Your task to perform on an android device: toggle airplane mode Image 0: 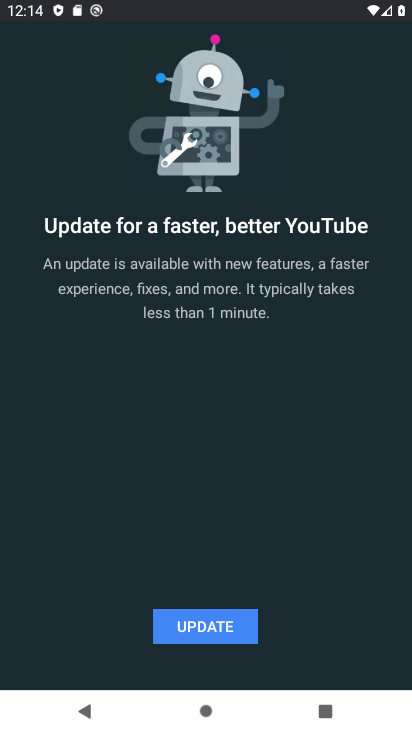
Step 0: press home button
Your task to perform on an android device: toggle airplane mode Image 1: 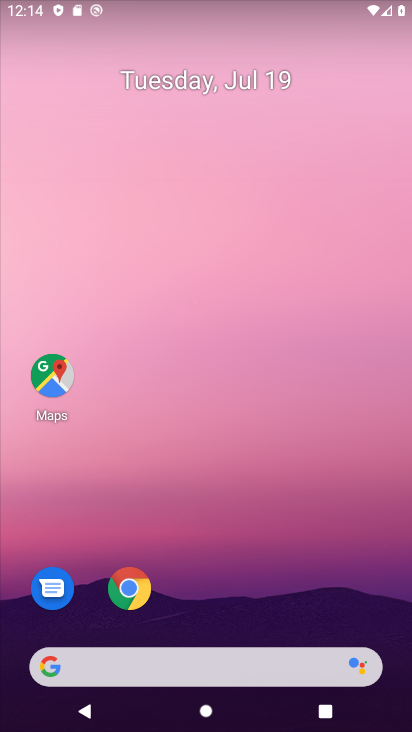
Step 1: drag from (280, 619) to (200, 76)
Your task to perform on an android device: toggle airplane mode Image 2: 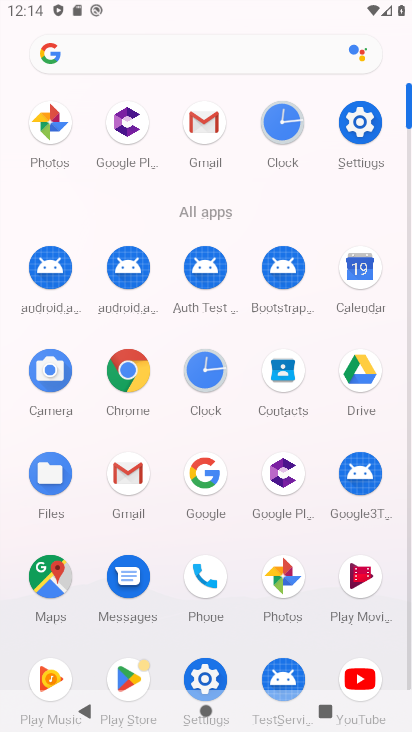
Step 2: click (363, 149)
Your task to perform on an android device: toggle airplane mode Image 3: 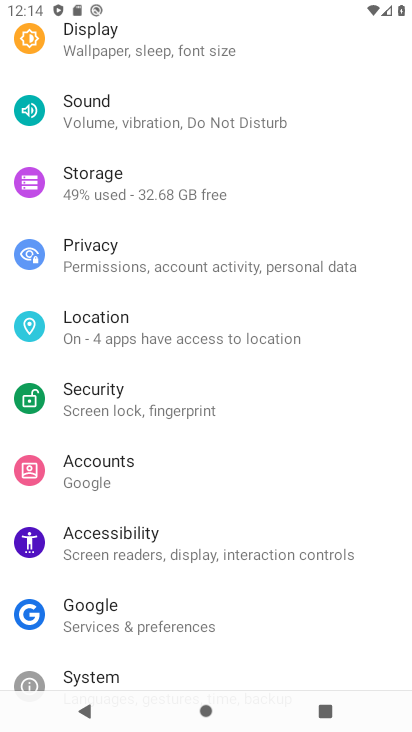
Step 3: drag from (216, 73) to (238, 498)
Your task to perform on an android device: toggle airplane mode Image 4: 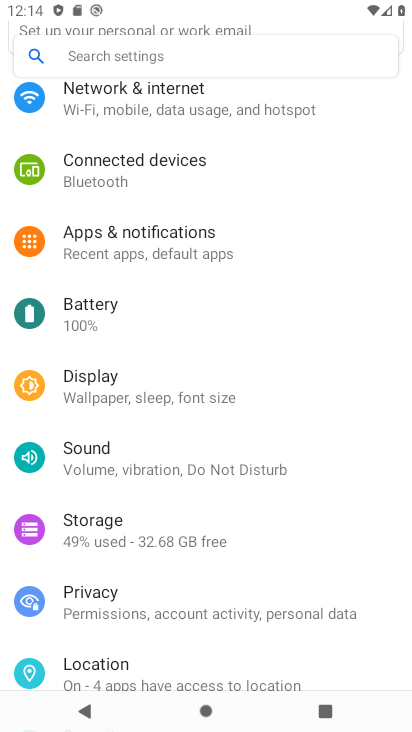
Step 4: drag from (188, 128) to (199, 438)
Your task to perform on an android device: toggle airplane mode Image 5: 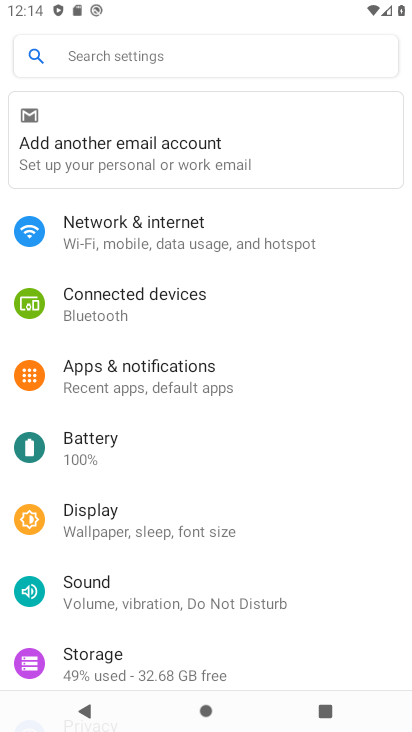
Step 5: click (152, 237)
Your task to perform on an android device: toggle airplane mode Image 6: 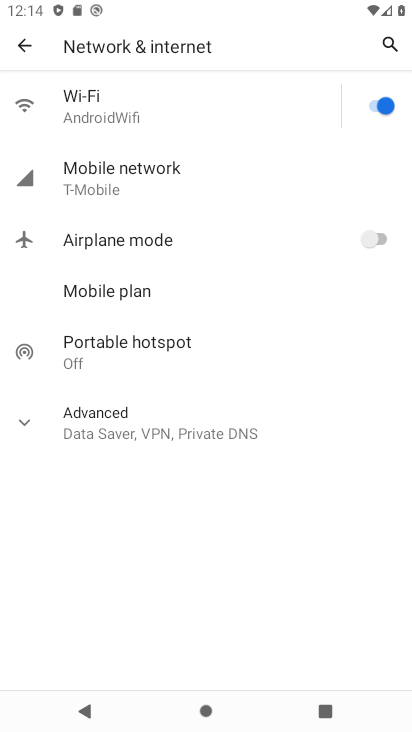
Step 6: click (385, 237)
Your task to perform on an android device: toggle airplane mode Image 7: 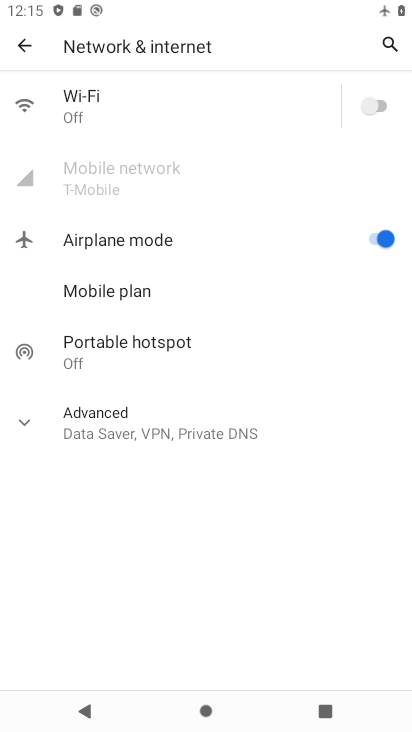
Step 7: task complete